Your task to perform on an android device: Go to Reddit.com Image 0: 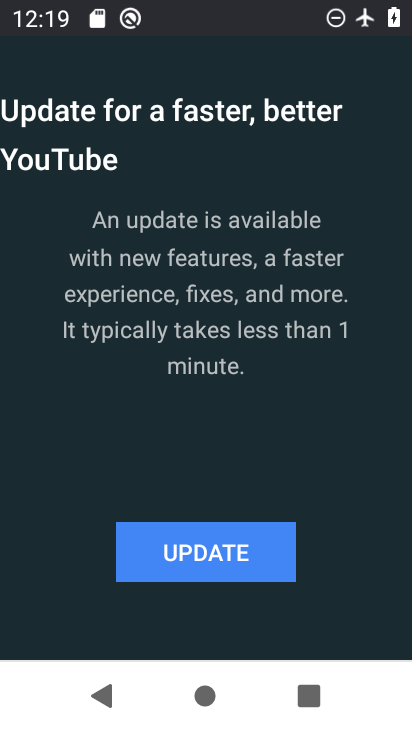
Step 0: press back button
Your task to perform on an android device: Go to Reddit.com Image 1: 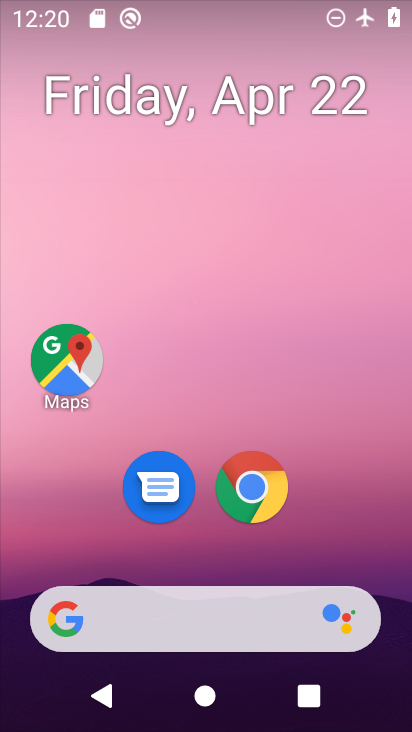
Step 1: drag from (312, 521) to (299, 126)
Your task to perform on an android device: Go to Reddit.com Image 2: 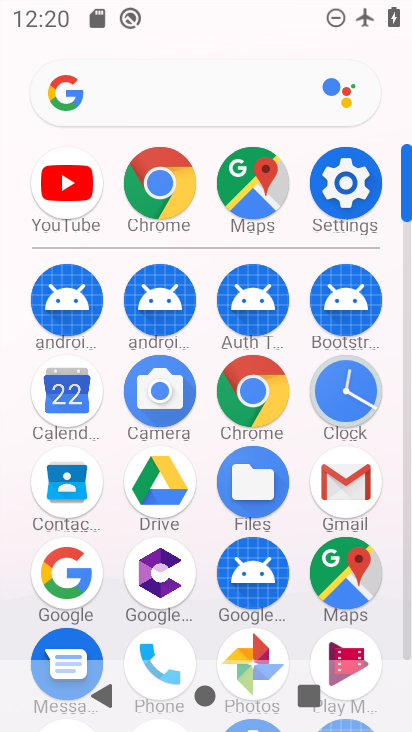
Step 2: click (170, 177)
Your task to perform on an android device: Go to Reddit.com Image 3: 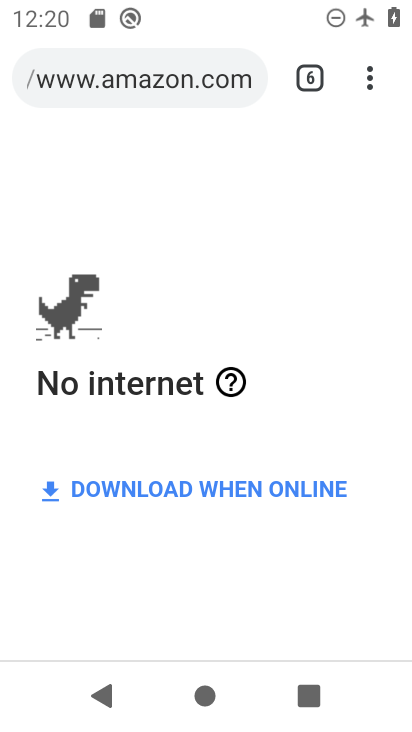
Step 3: click (360, 67)
Your task to perform on an android device: Go to Reddit.com Image 4: 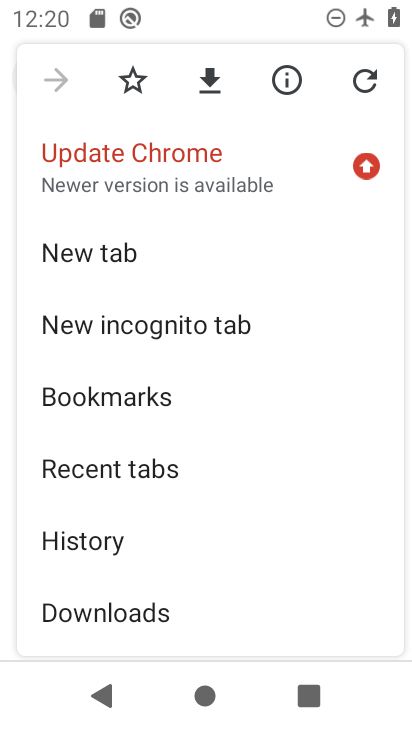
Step 4: click (119, 261)
Your task to perform on an android device: Go to Reddit.com Image 5: 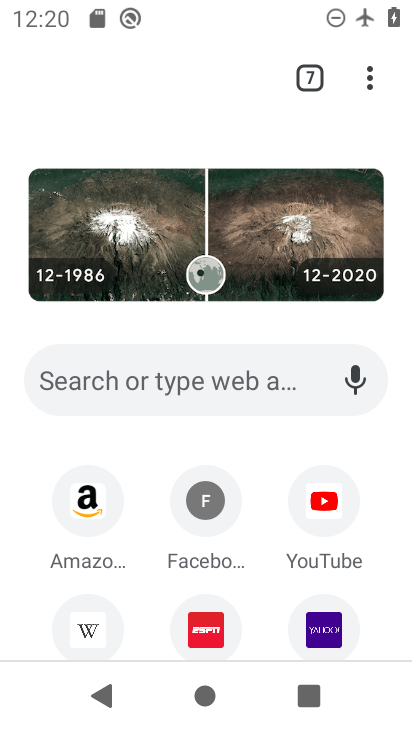
Step 5: click (271, 371)
Your task to perform on an android device: Go to Reddit.com Image 6: 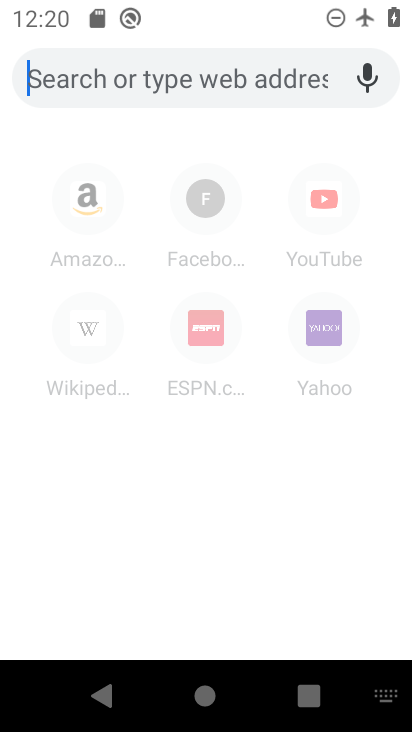
Step 6: type " Reddit.com"
Your task to perform on an android device: Go to Reddit.com Image 7: 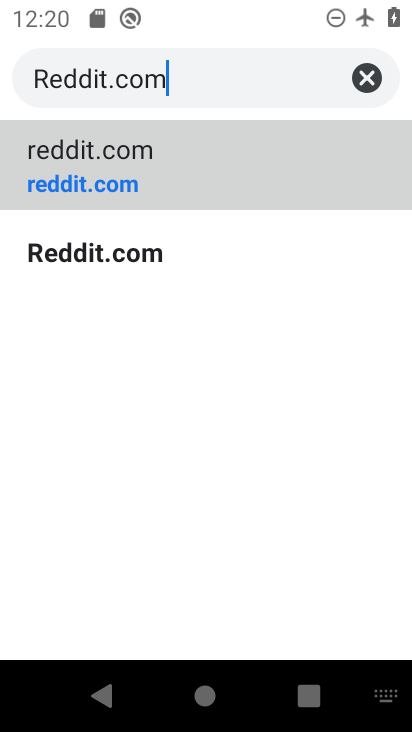
Step 7: click (119, 256)
Your task to perform on an android device: Go to Reddit.com Image 8: 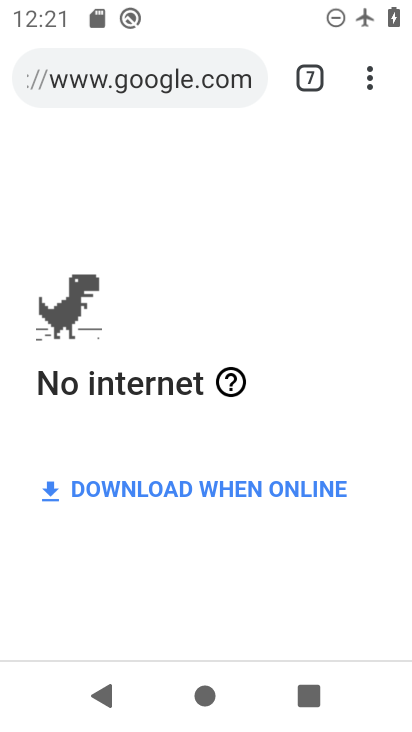
Step 8: task complete